Your task to perform on an android device: Open Amazon Image 0: 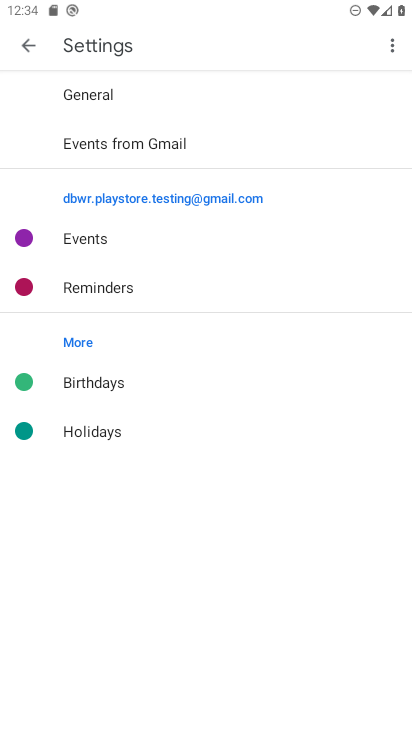
Step 0: press home button
Your task to perform on an android device: Open Amazon Image 1: 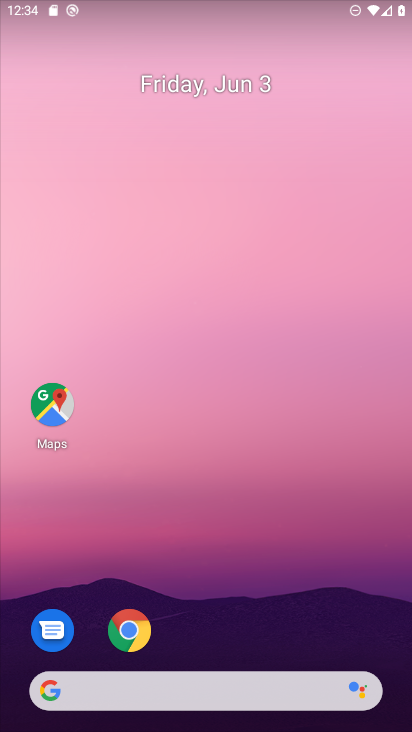
Step 1: click (132, 633)
Your task to perform on an android device: Open Amazon Image 2: 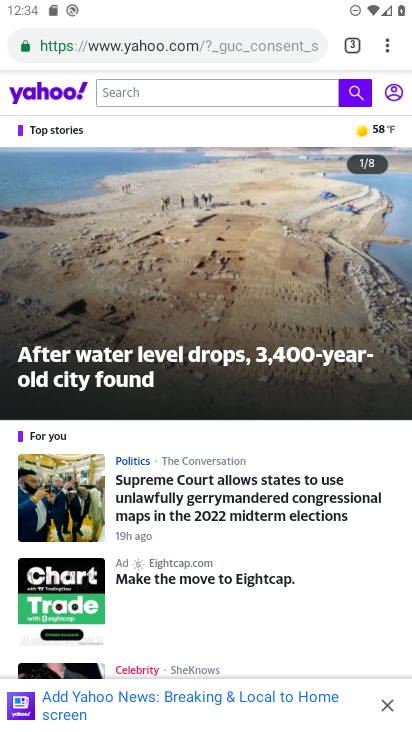
Step 2: click (357, 47)
Your task to perform on an android device: Open Amazon Image 3: 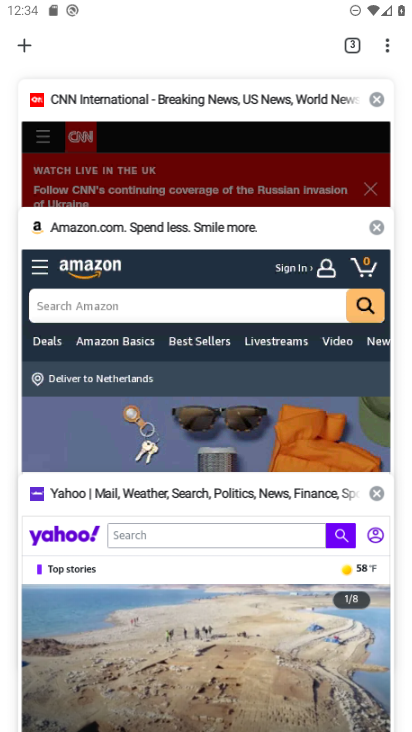
Step 3: click (199, 241)
Your task to perform on an android device: Open Amazon Image 4: 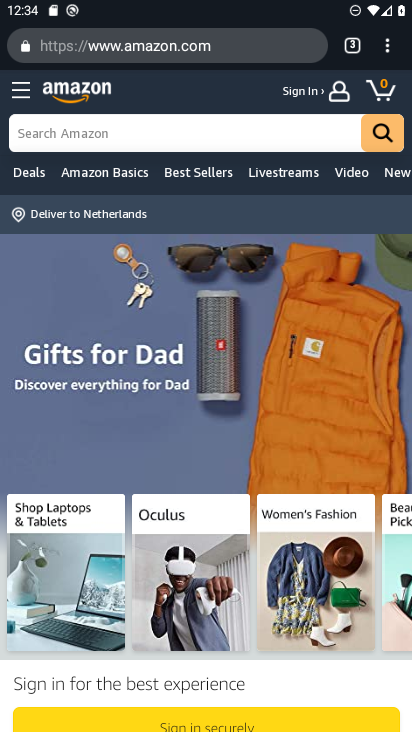
Step 4: task complete